Your task to perform on an android device: Go to internet settings Image 0: 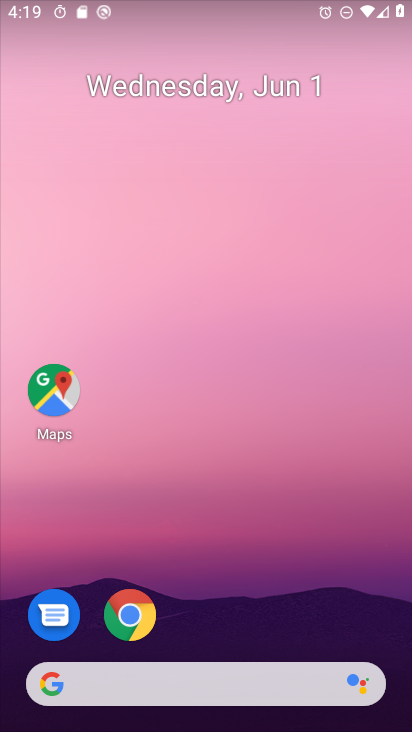
Step 0: drag from (228, 569) to (260, 131)
Your task to perform on an android device: Go to internet settings Image 1: 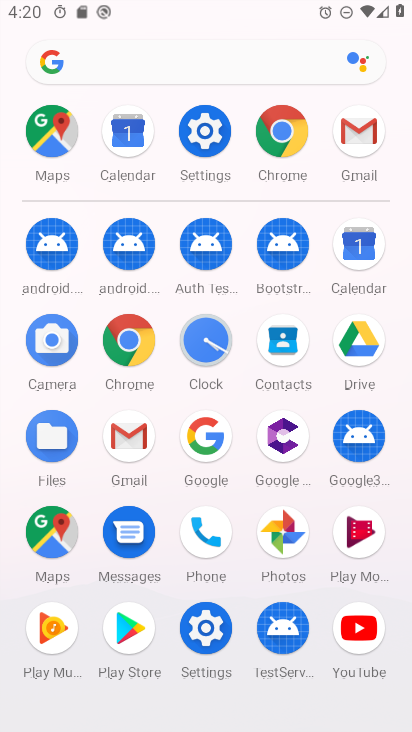
Step 1: click (201, 139)
Your task to perform on an android device: Go to internet settings Image 2: 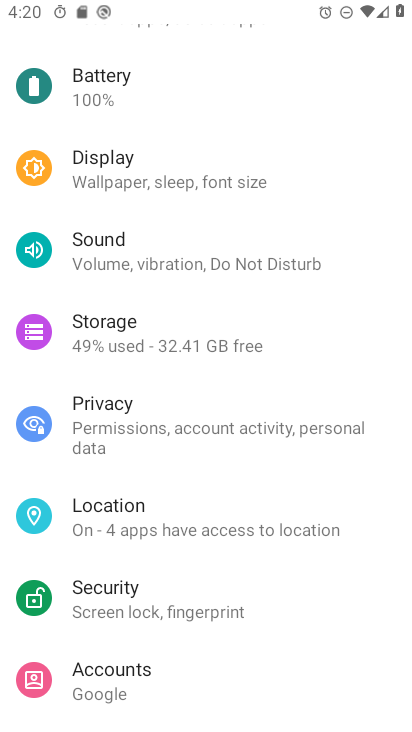
Step 2: drag from (262, 173) to (255, 521)
Your task to perform on an android device: Go to internet settings Image 3: 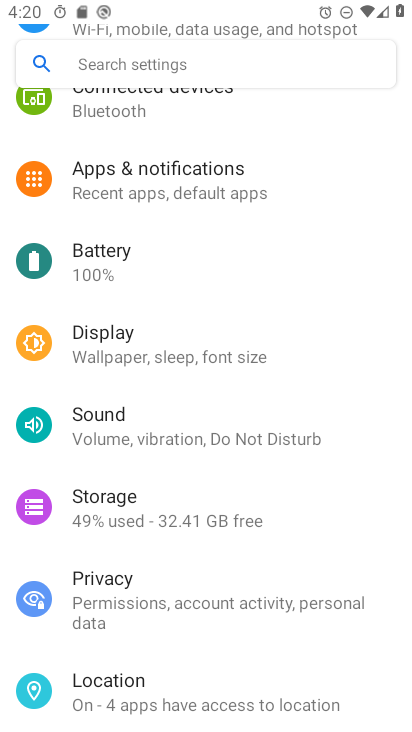
Step 3: drag from (262, 156) to (206, 509)
Your task to perform on an android device: Go to internet settings Image 4: 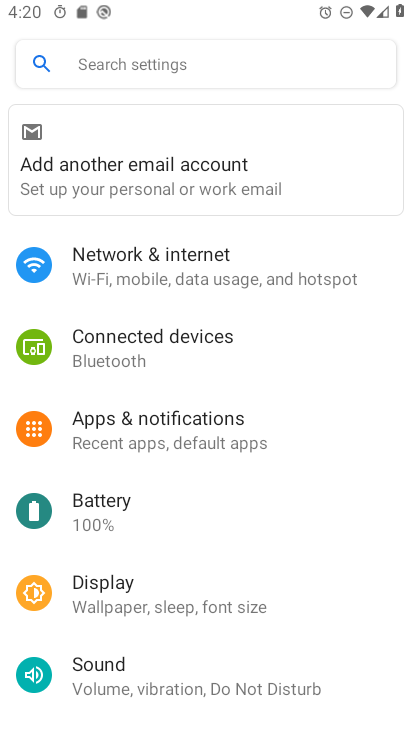
Step 4: click (232, 267)
Your task to perform on an android device: Go to internet settings Image 5: 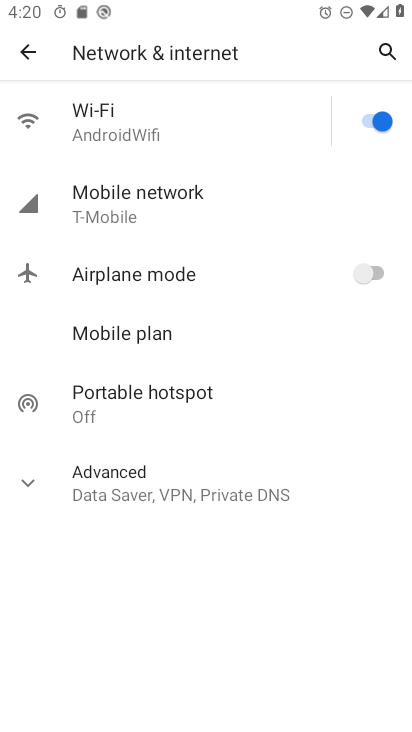
Step 5: click (81, 486)
Your task to perform on an android device: Go to internet settings Image 6: 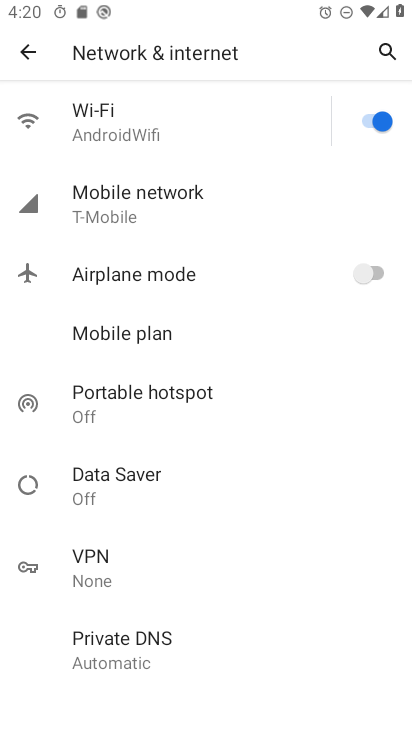
Step 6: task complete